Your task to perform on an android device: turn off data saver in the chrome app Image 0: 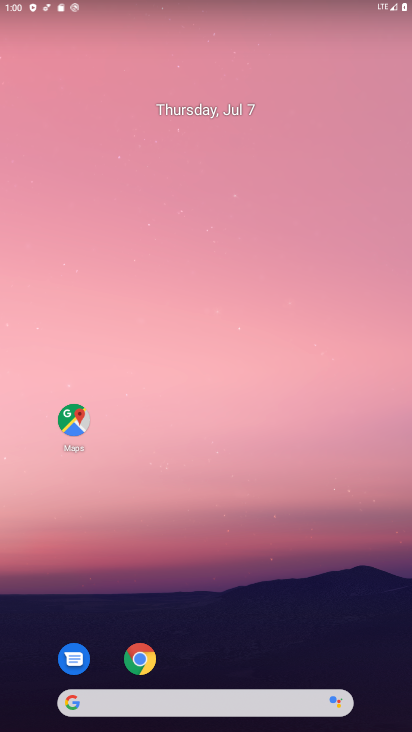
Step 0: click (141, 653)
Your task to perform on an android device: turn off data saver in the chrome app Image 1: 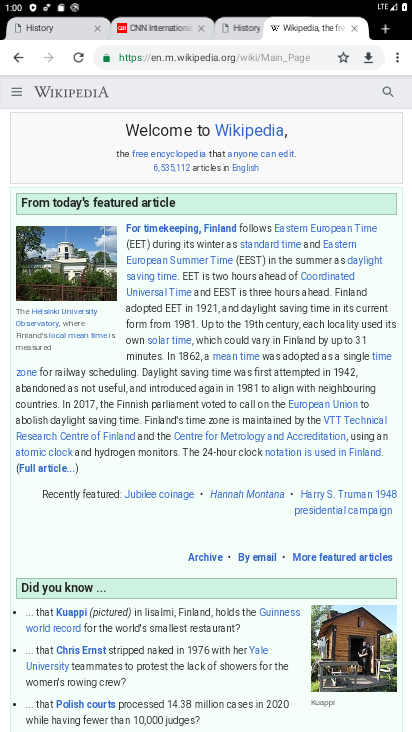
Step 1: click (400, 55)
Your task to perform on an android device: turn off data saver in the chrome app Image 2: 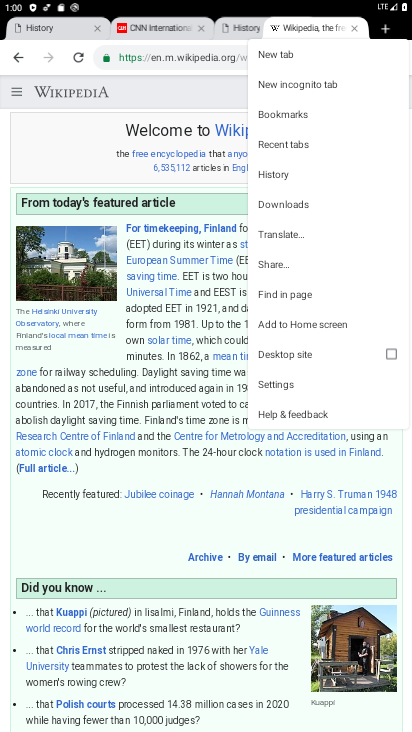
Step 2: click (288, 381)
Your task to perform on an android device: turn off data saver in the chrome app Image 3: 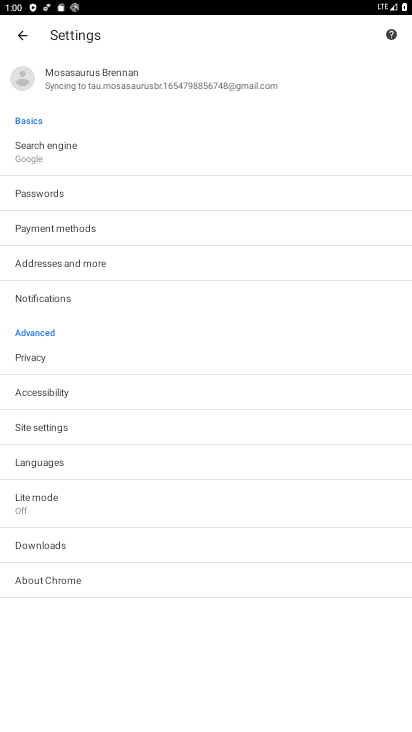
Step 3: click (38, 497)
Your task to perform on an android device: turn off data saver in the chrome app Image 4: 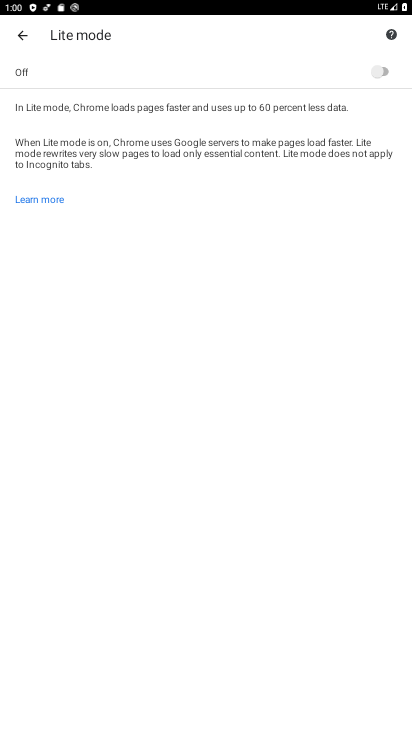
Step 4: task complete